Your task to perform on an android device: toggle location history Image 0: 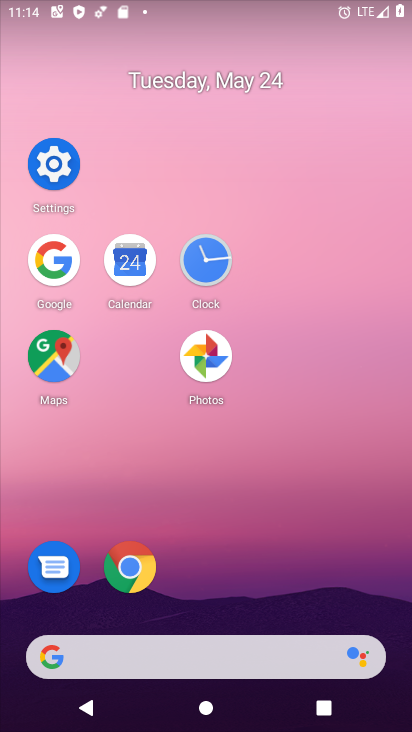
Step 0: click (65, 170)
Your task to perform on an android device: toggle location history Image 1: 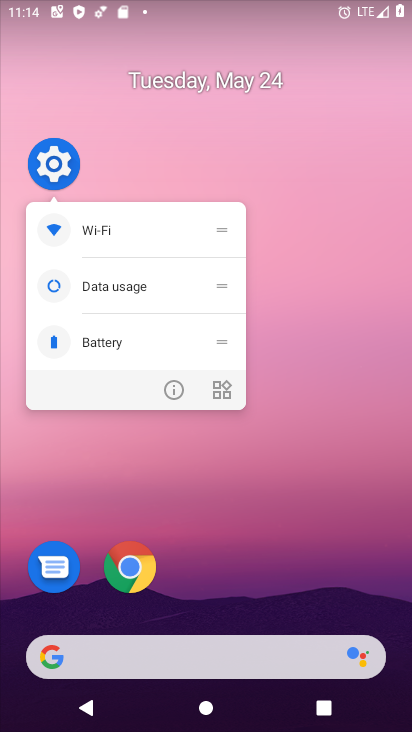
Step 1: click (66, 168)
Your task to perform on an android device: toggle location history Image 2: 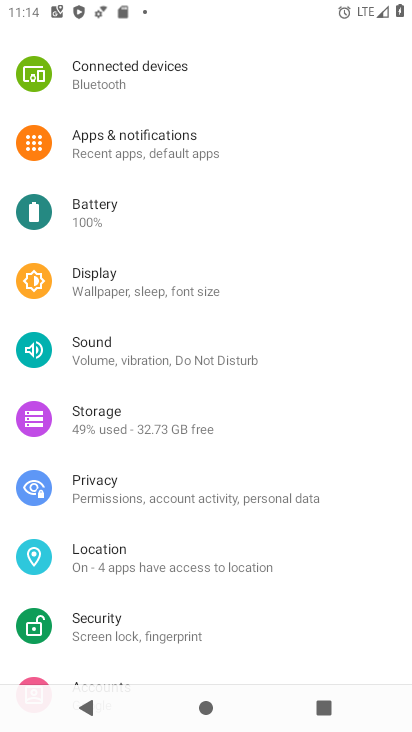
Step 2: click (181, 574)
Your task to perform on an android device: toggle location history Image 3: 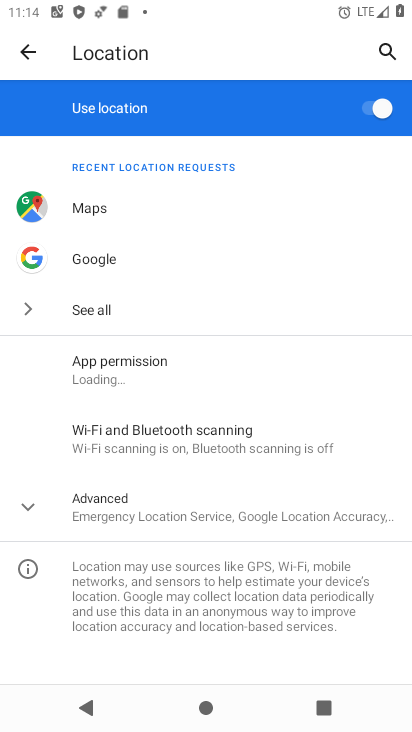
Step 3: click (180, 521)
Your task to perform on an android device: toggle location history Image 4: 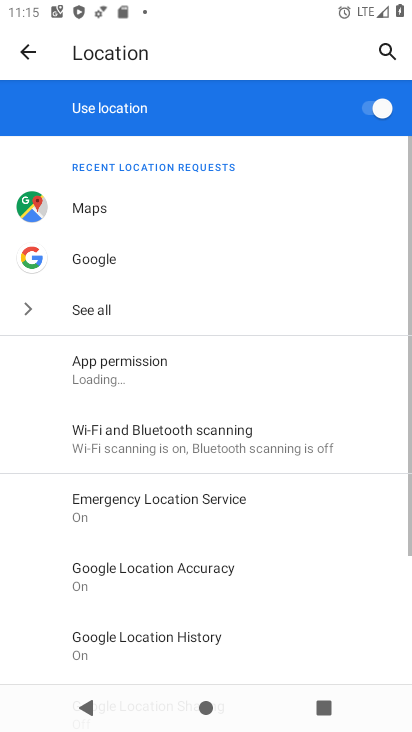
Step 4: drag from (180, 519) to (247, 227)
Your task to perform on an android device: toggle location history Image 5: 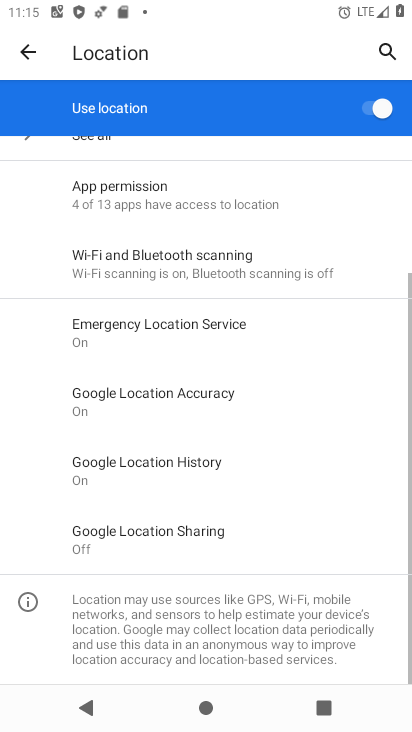
Step 5: click (182, 477)
Your task to perform on an android device: toggle location history Image 6: 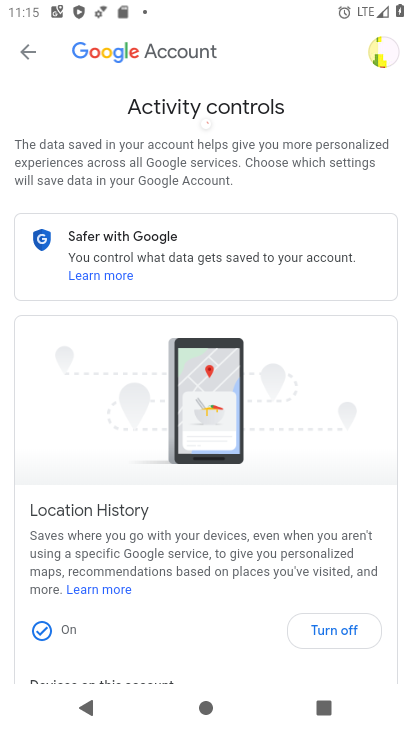
Step 6: drag from (248, 496) to (333, 155)
Your task to perform on an android device: toggle location history Image 7: 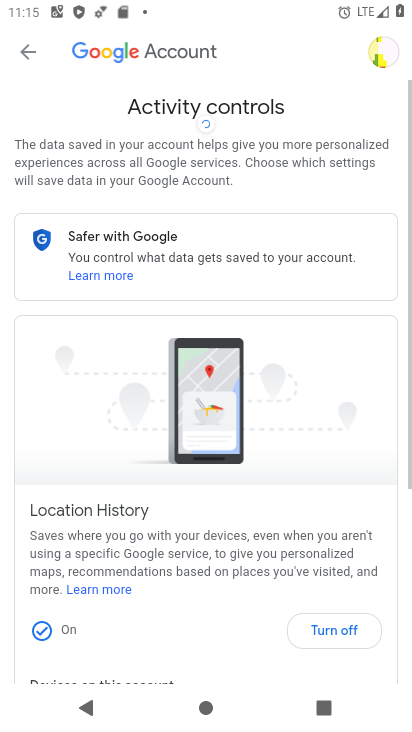
Step 7: click (329, 349)
Your task to perform on an android device: toggle location history Image 8: 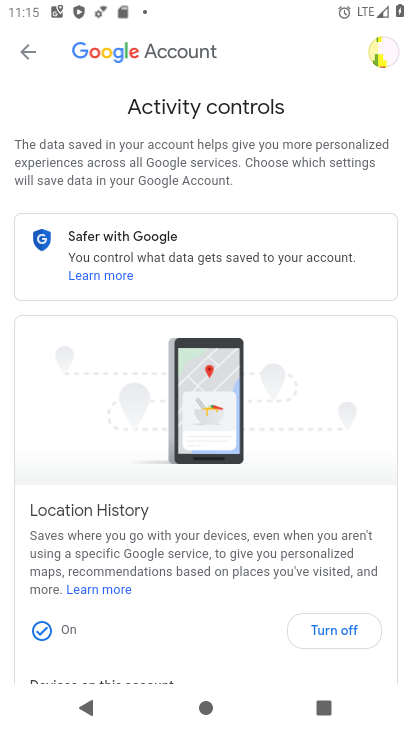
Step 8: click (355, 630)
Your task to perform on an android device: toggle location history Image 9: 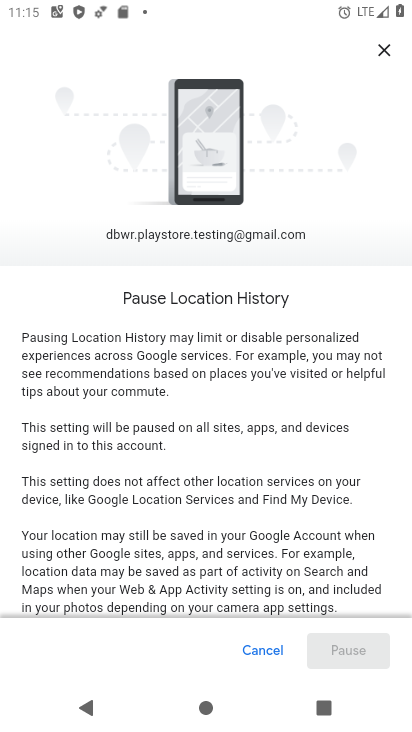
Step 9: drag from (261, 571) to (357, 75)
Your task to perform on an android device: toggle location history Image 10: 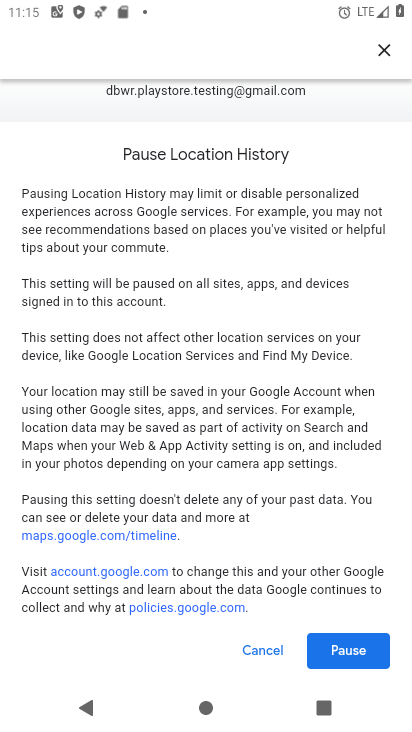
Step 10: click (332, 656)
Your task to perform on an android device: toggle location history Image 11: 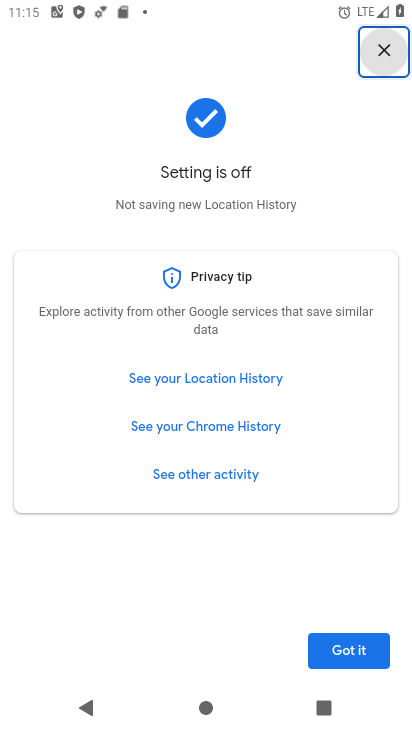
Step 11: click (362, 644)
Your task to perform on an android device: toggle location history Image 12: 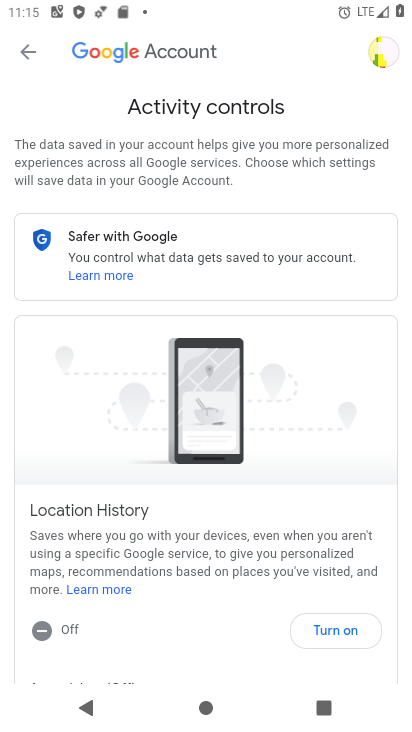
Step 12: task complete